Your task to perform on an android device: Go to Amazon Image 0: 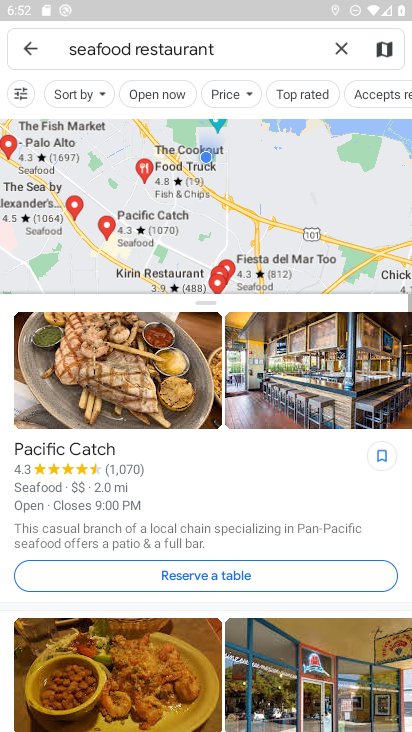
Step 0: drag from (255, 565) to (136, 146)
Your task to perform on an android device: Go to Amazon Image 1: 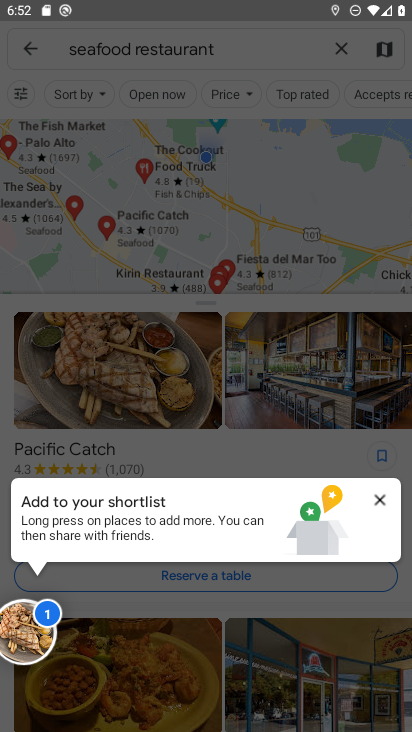
Step 1: press home button
Your task to perform on an android device: Go to Amazon Image 2: 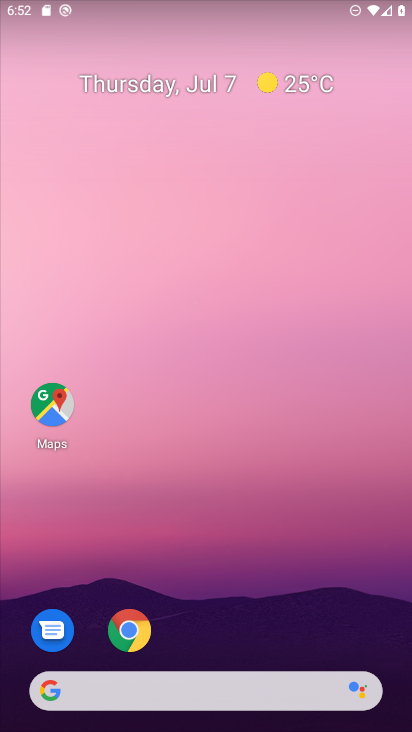
Step 2: click (129, 629)
Your task to perform on an android device: Go to Amazon Image 3: 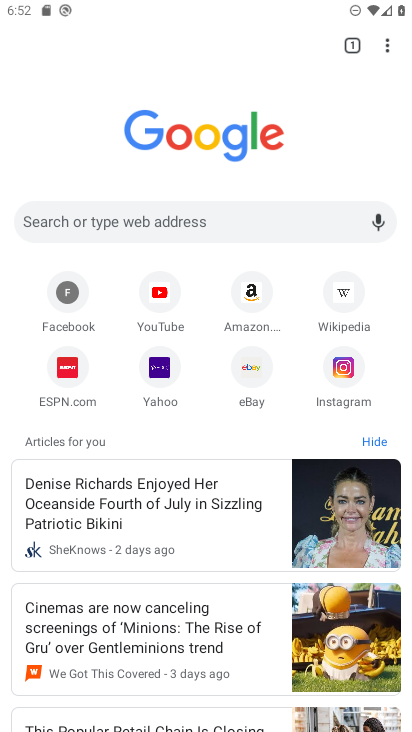
Step 3: click (256, 290)
Your task to perform on an android device: Go to Amazon Image 4: 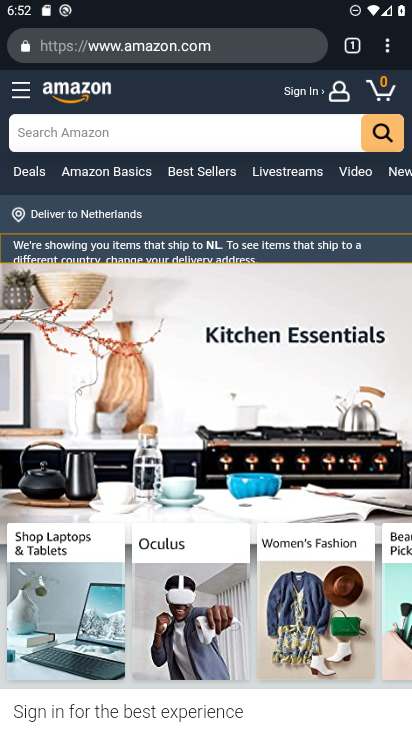
Step 4: task complete